Your task to perform on an android device: Clear the shopping cart on newegg.com. Search for logitech g pro on newegg.com, select the first entry, and add it to the cart. Image 0: 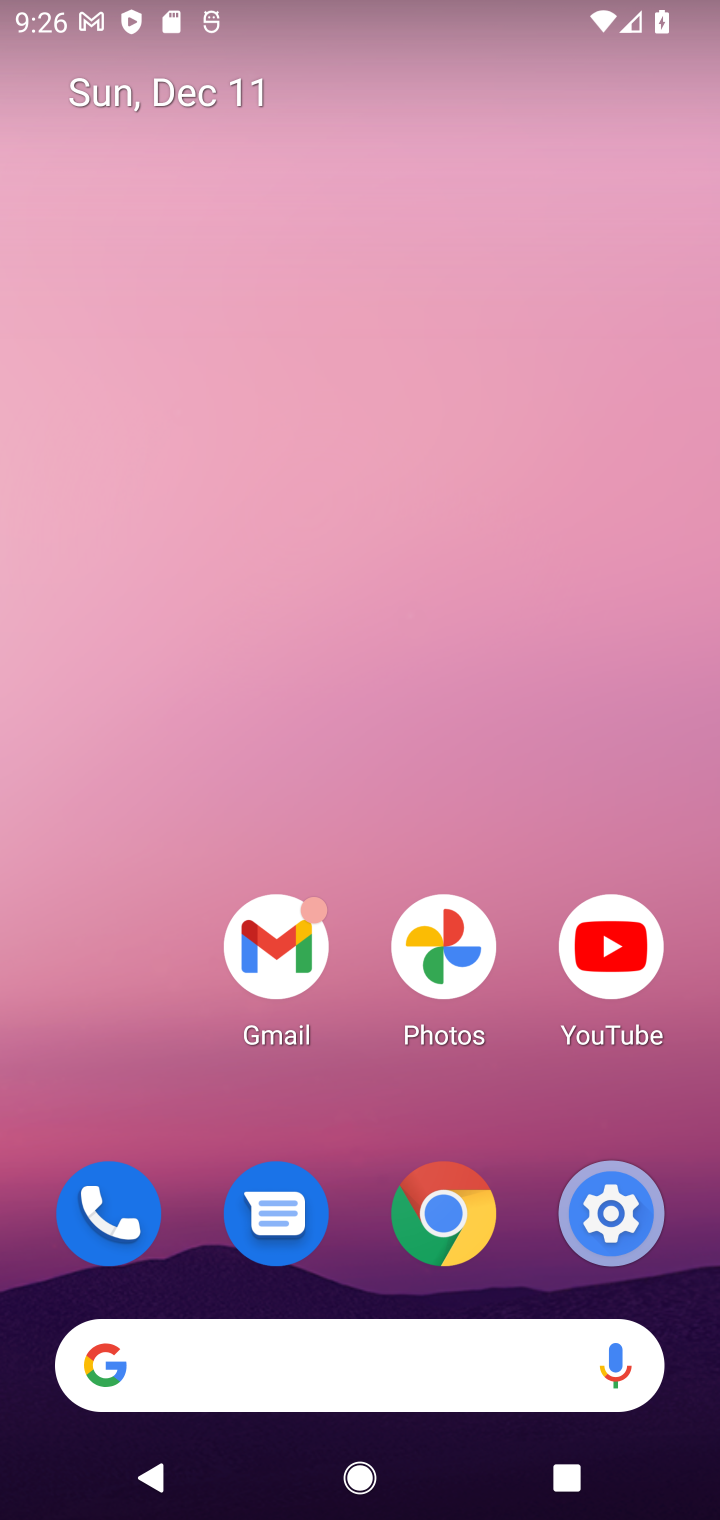
Step 0: click (355, 1393)
Your task to perform on an android device: Clear the shopping cart on newegg.com. Search for logitech g pro on newegg.com, select the first entry, and add it to the cart. Image 1: 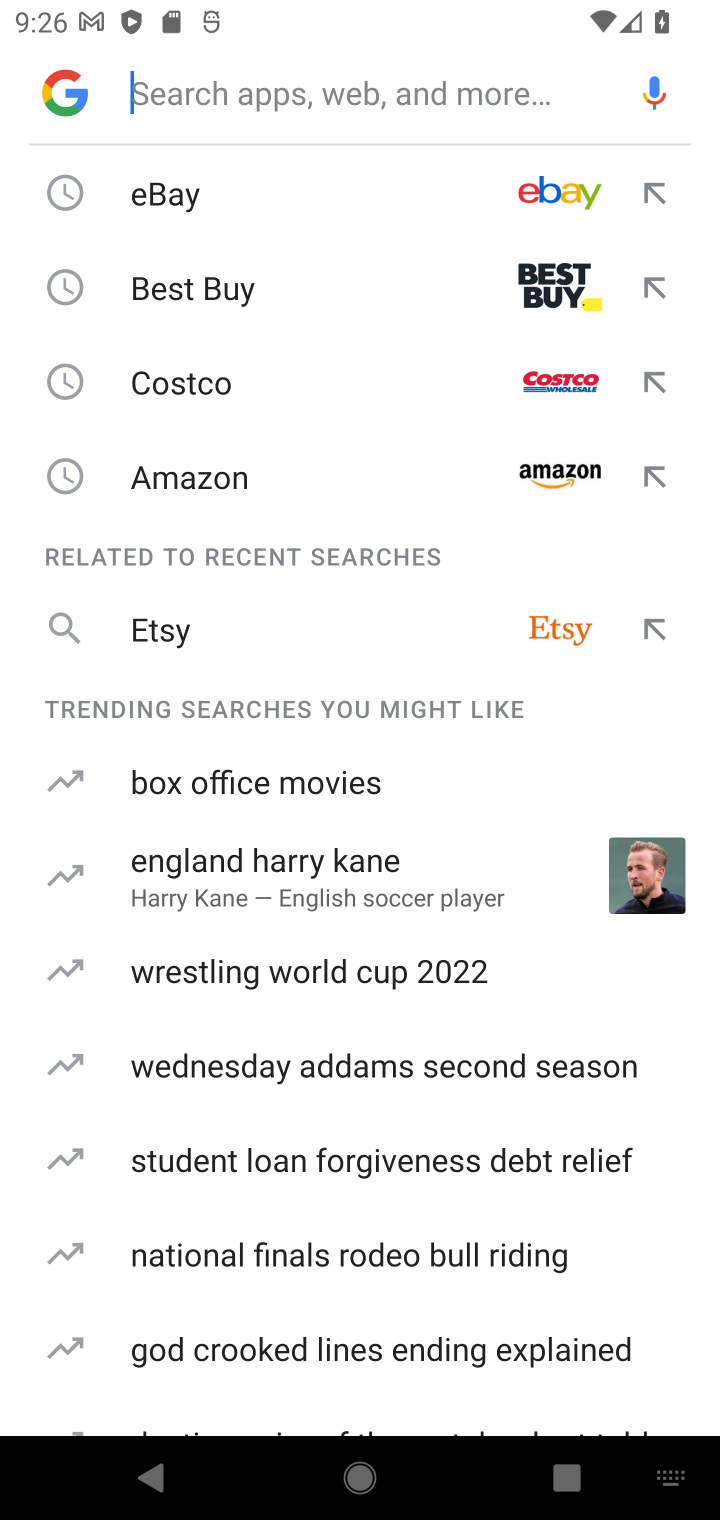
Step 1: type "newegg.com"
Your task to perform on an android device: Clear the shopping cart on newegg.com. Search for logitech g pro on newegg.com, select the first entry, and add it to the cart. Image 2: 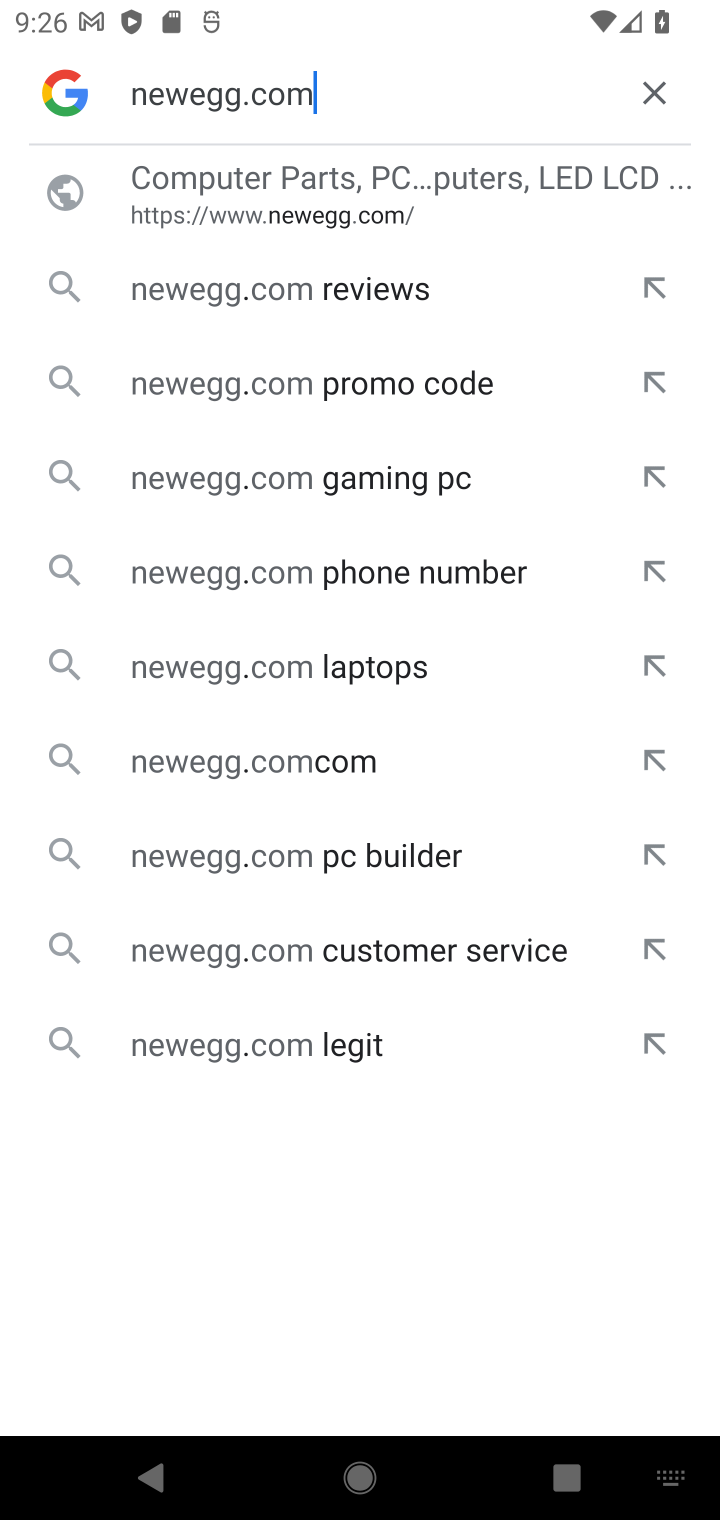
Step 2: click (270, 204)
Your task to perform on an android device: Clear the shopping cart on newegg.com. Search for logitech g pro on newegg.com, select the first entry, and add it to the cart. Image 3: 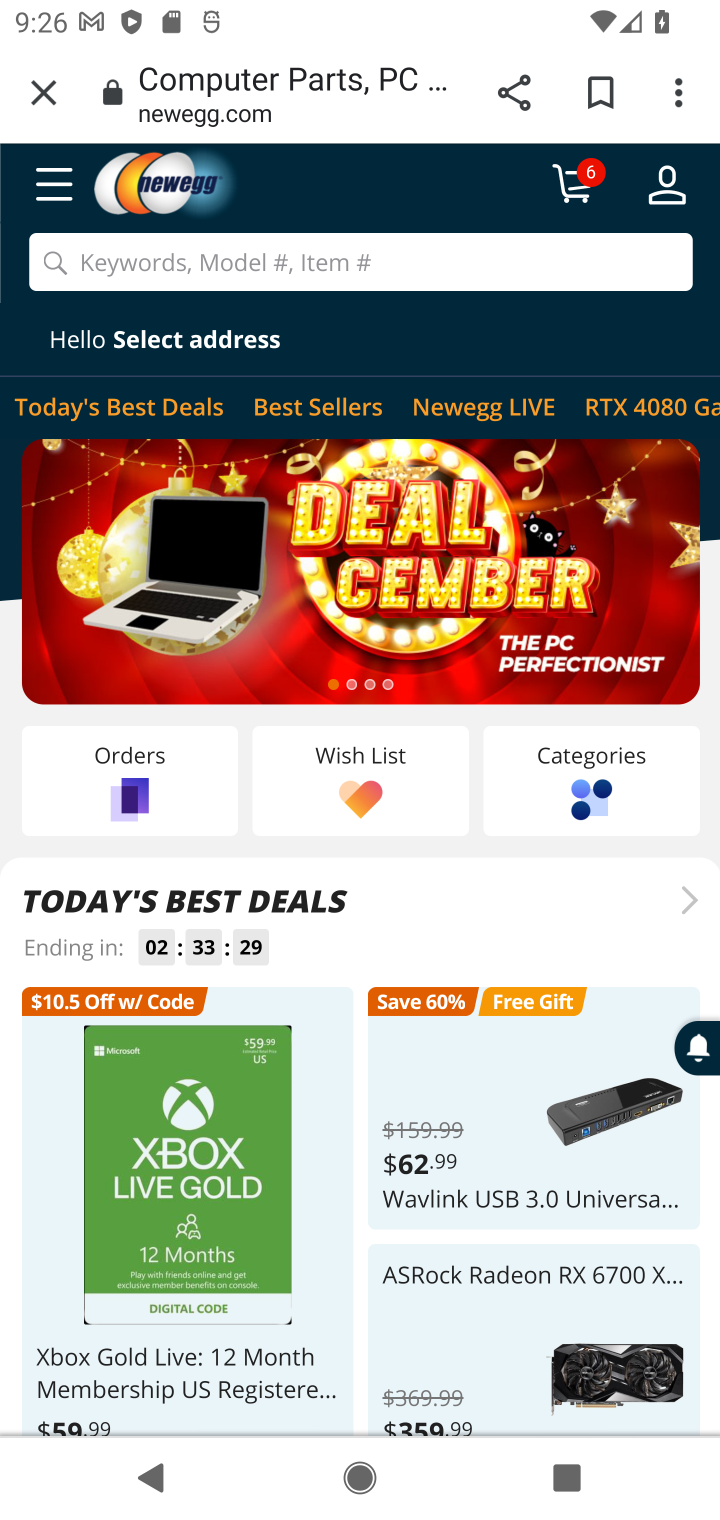
Step 3: click (485, 280)
Your task to perform on an android device: Clear the shopping cart on newegg.com. Search for logitech g pro on newegg.com, select the first entry, and add it to the cart. Image 4: 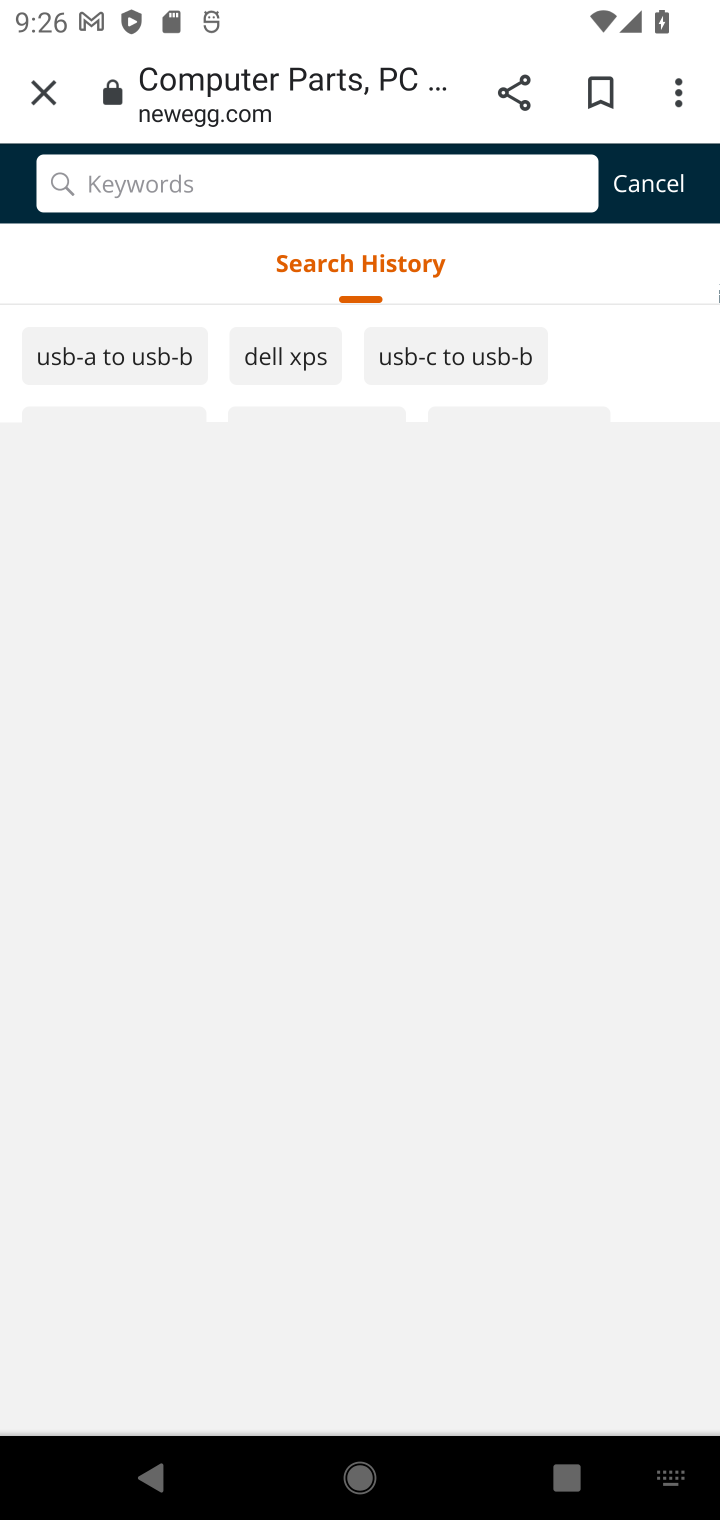
Step 4: type "logitech g pro"
Your task to perform on an android device: Clear the shopping cart on newegg.com. Search for logitech g pro on newegg.com, select the first entry, and add it to the cart. Image 5: 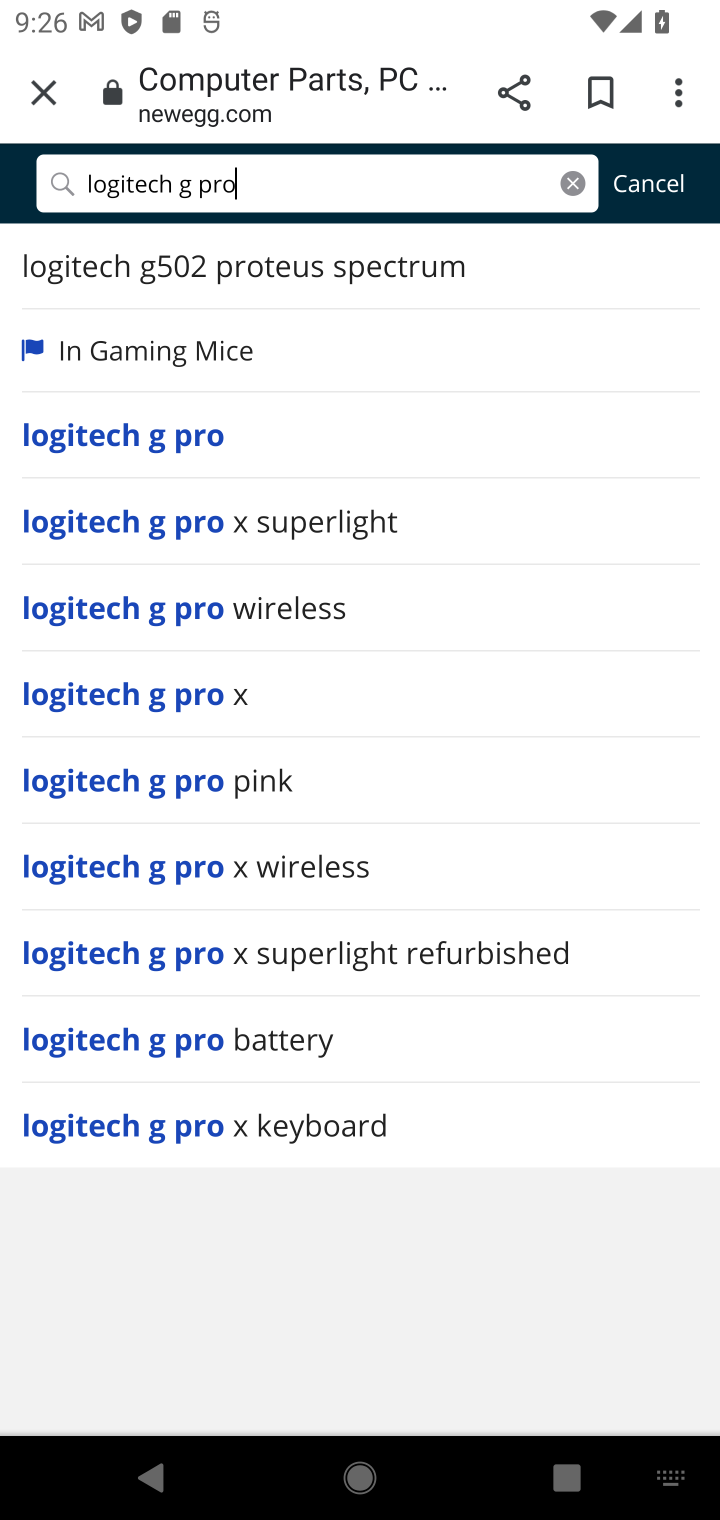
Step 5: click (245, 433)
Your task to perform on an android device: Clear the shopping cart on newegg.com. Search for logitech g pro on newegg.com, select the first entry, and add it to the cart. Image 6: 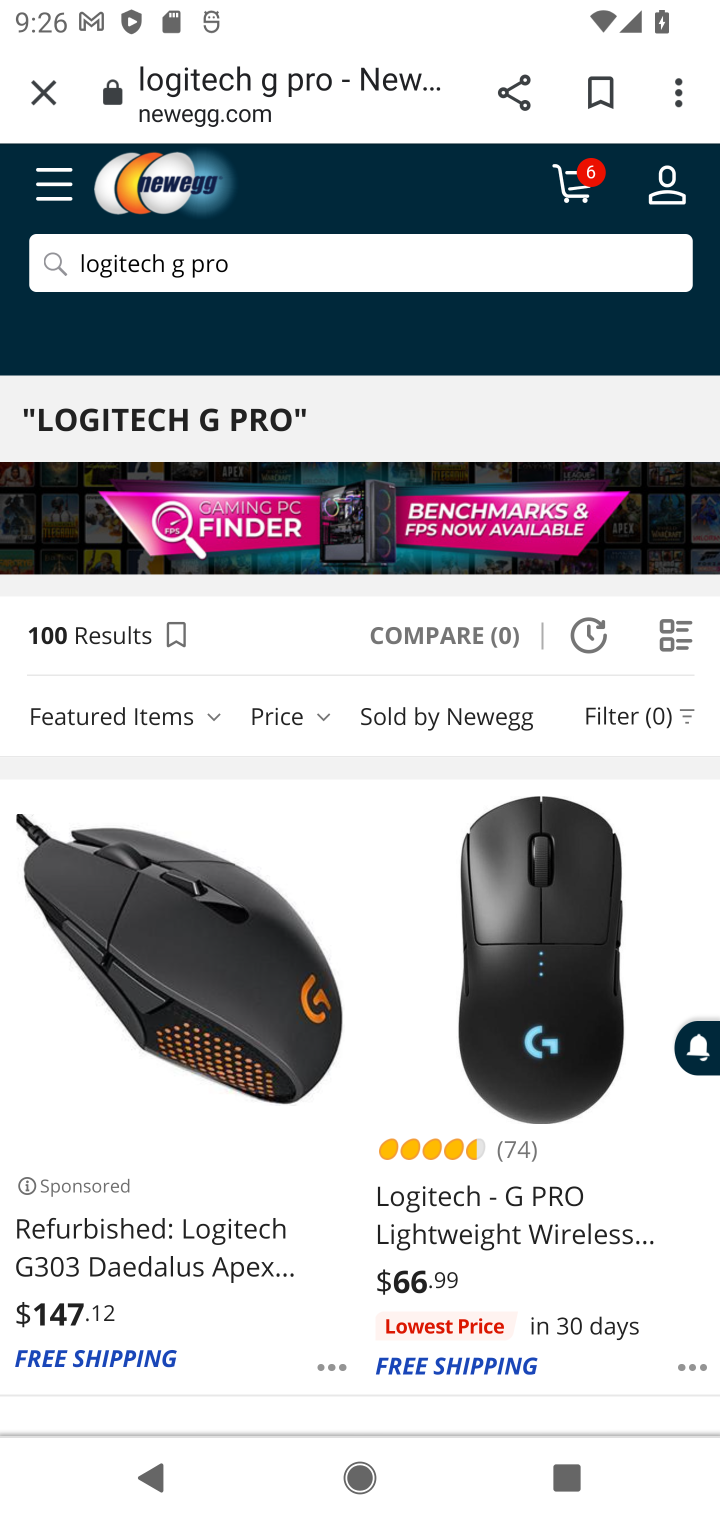
Step 6: click (163, 1078)
Your task to perform on an android device: Clear the shopping cart on newegg.com. Search for logitech g pro on newegg.com, select the first entry, and add it to the cart. Image 7: 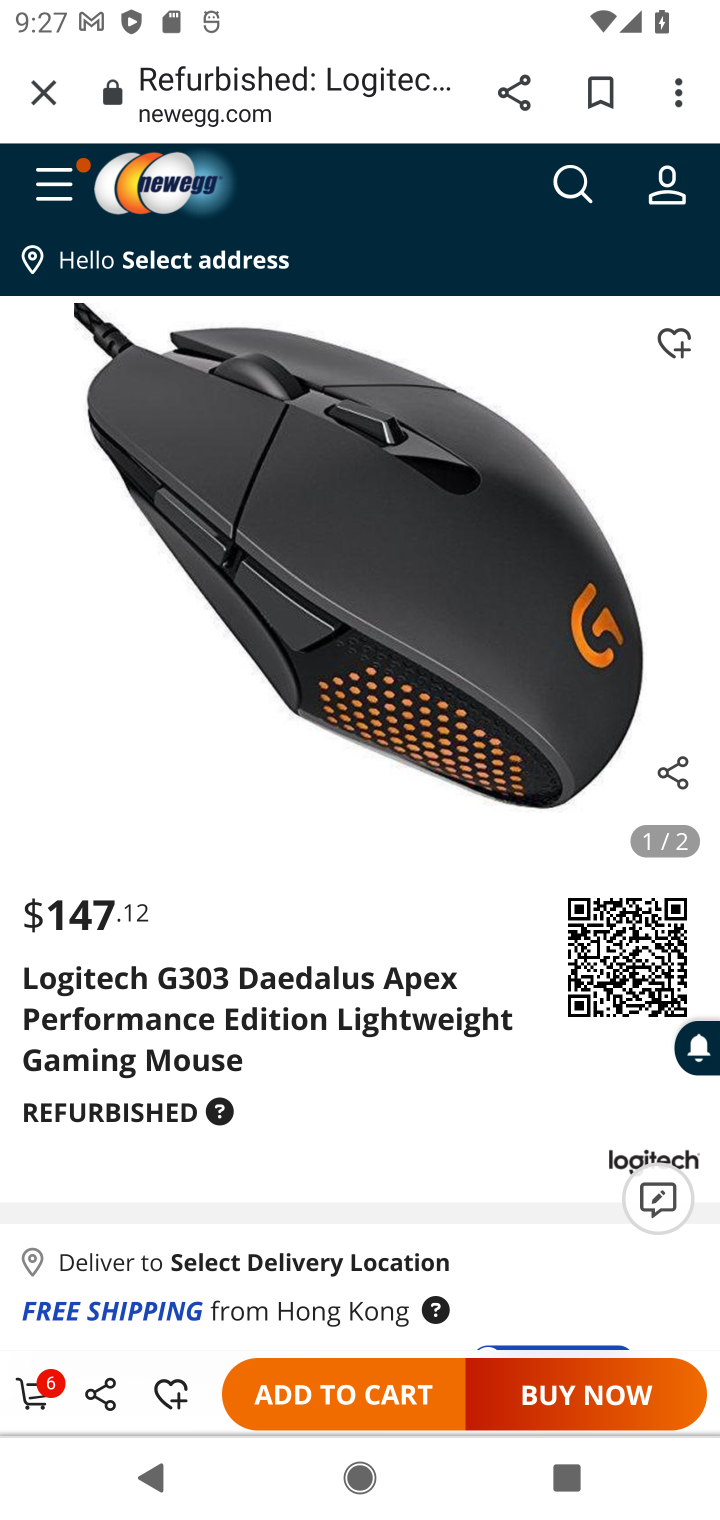
Step 7: click (333, 1413)
Your task to perform on an android device: Clear the shopping cart on newegg.com. Search for logitech g pro on newegg.com, select the first entry, and add it to the cart. Image 8: 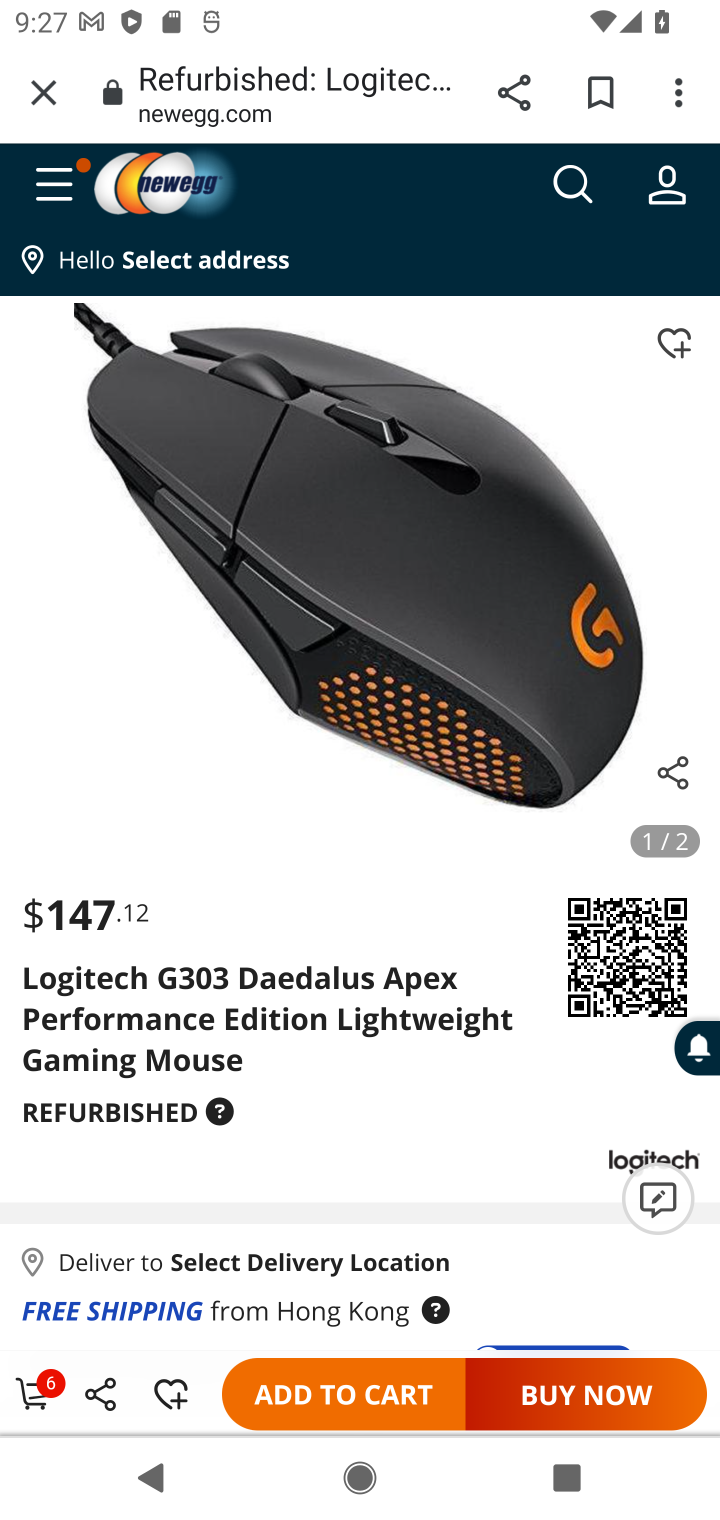
Step 8: task complete